Your task to perform on an android device: Open Yahoo.com Image 0: 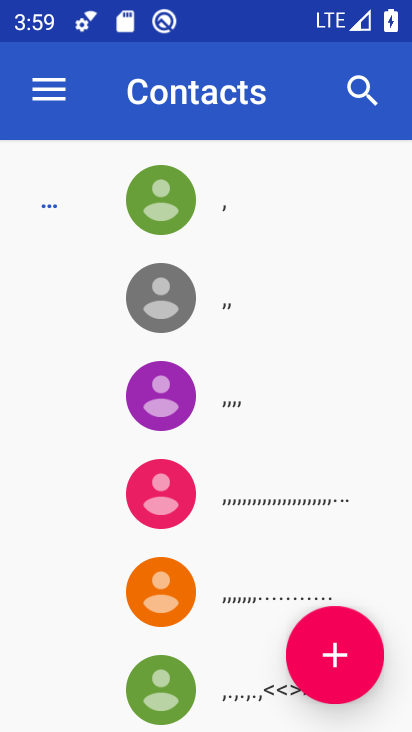
Step 0: press home button
Your task to perform on an android device: Open Yahoo.com Image 1: 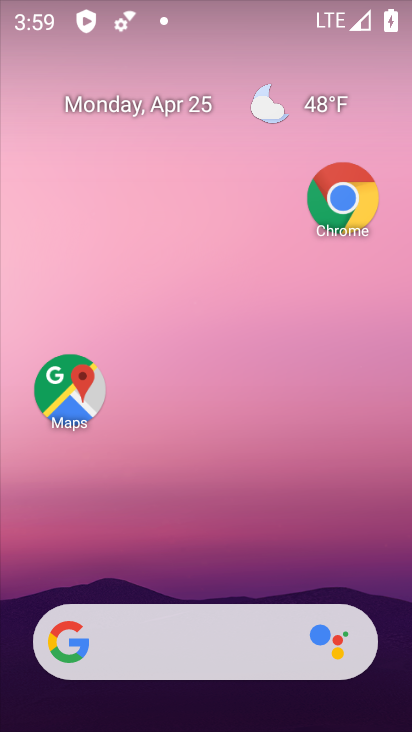
Step 1: drag from (200, 659) to (389, 177)
Your task to perform on an android device: Open Yahoo.com Image 2: 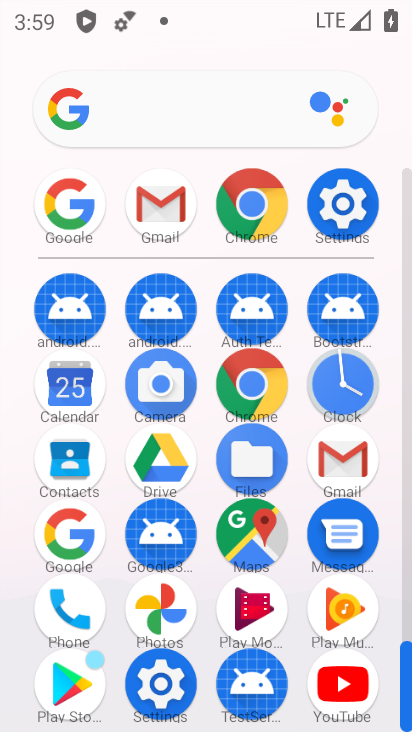
Step 2: click (245, 203)
Your task to perform on an android device: Open Yahoo.com Image 3: 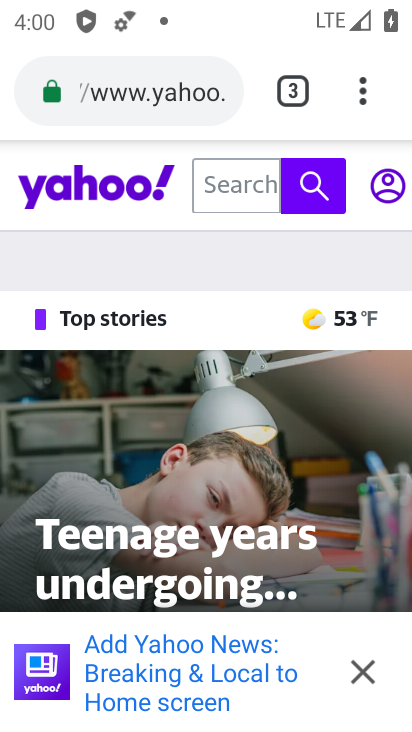
Step 3: task complete